Your task to perform on an android device: Open settings Image 0: 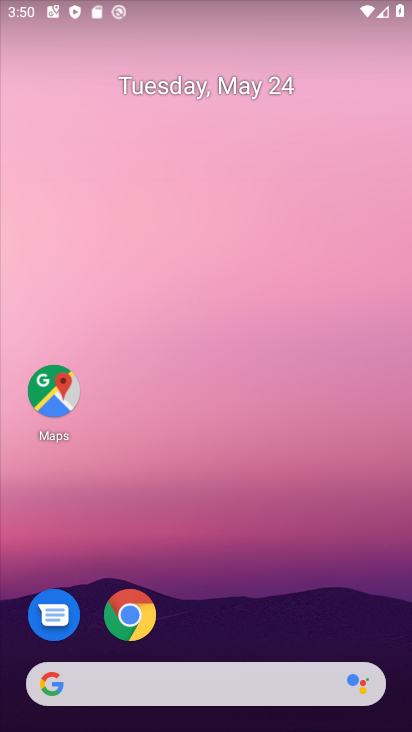
Step 0: drag from (196, 722) to (182, 22)
Your task to perform on an android device: Open settings Image 1: 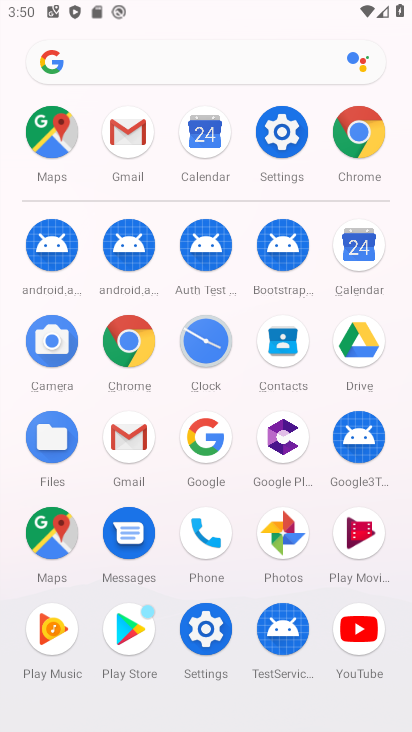
Step 1: click (281, 141)
Your task to perform on an android device: Open settings Image 2: 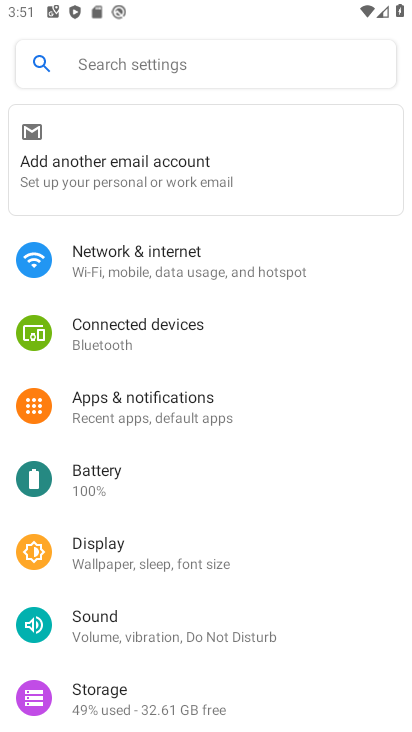
Step 2: task complete